Your task to perform on an android device: Open eBay Image 0: 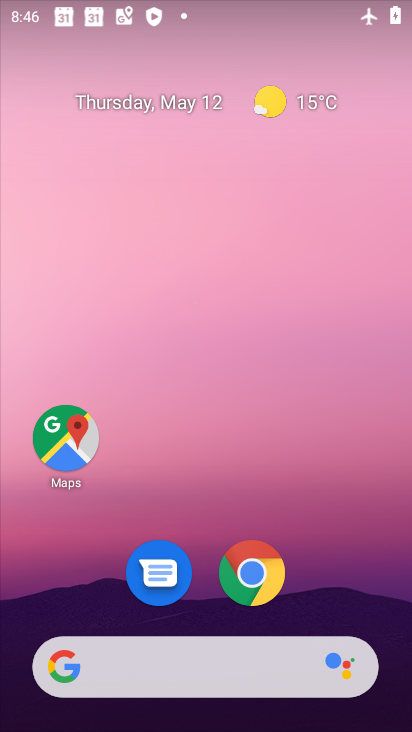
Step 0: click (252, 572)
Your task to perform on an android device: Open eBay Image 1: 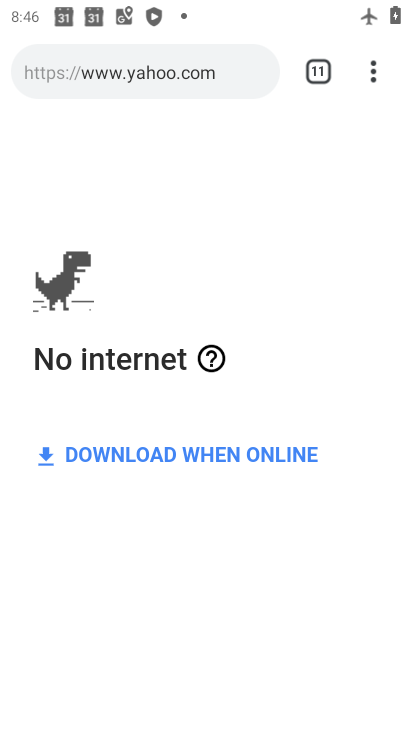
Step 1: click (376, 70)
Your task to perform on an android device: Open eBay Image 2: 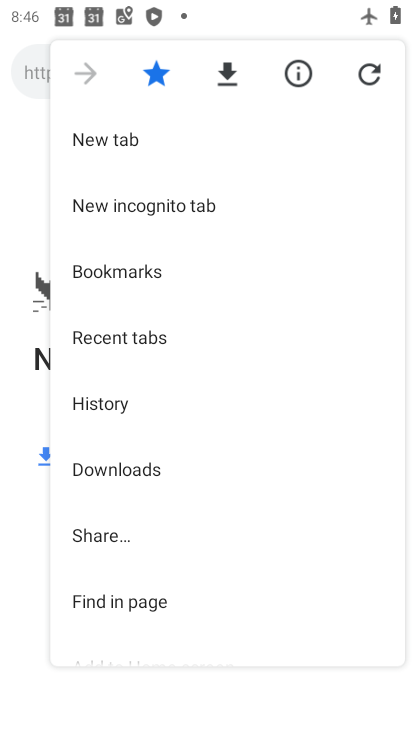
Step 2: click (99, 147)
Your task to perform on an android device: Open eBay Image 3: 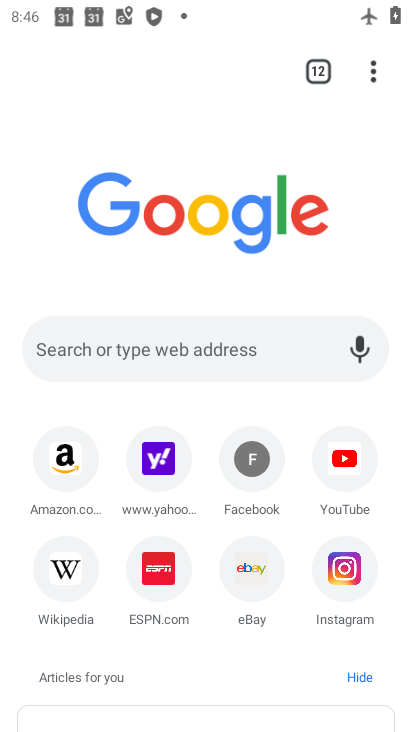
Step 3: click (246, 573)
Your task to perform on an android device: Open eBay Image 4: 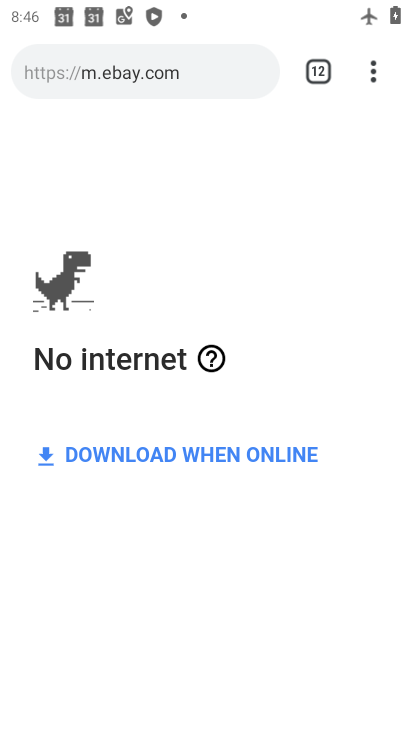
Step 4: task complete